Your task to perform on an android device: Show me popular games on the Play Store Image 0: 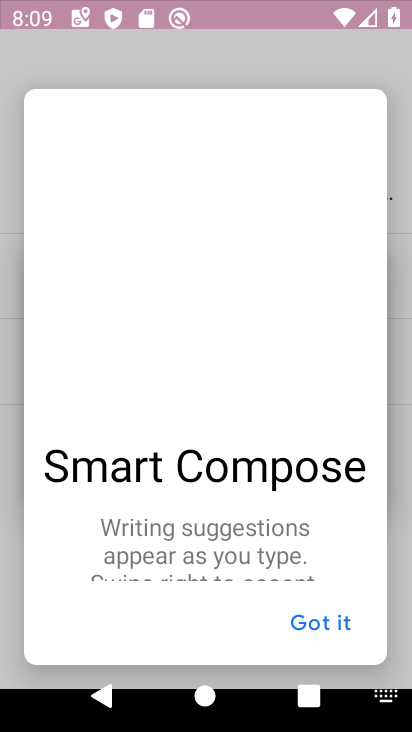
Step 0: click (376, 176)
Your task to perform on an android device: Show me popular games on the Play Store Image 1: 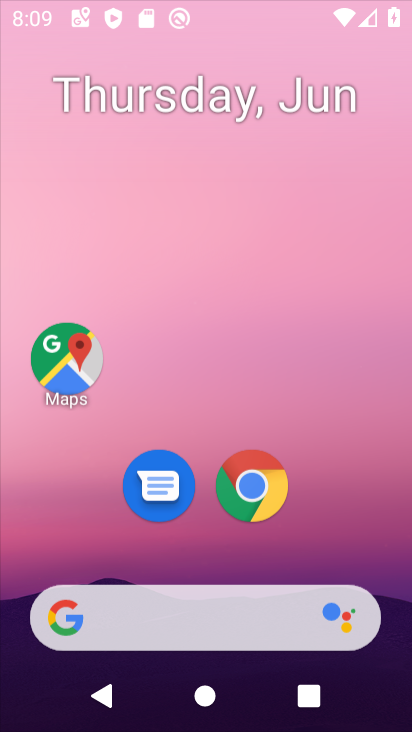
Step 1: drag from (214, 538) to (360, 97)
Your task to perform on an android device: Show me popular games on the Play Store Image 2: 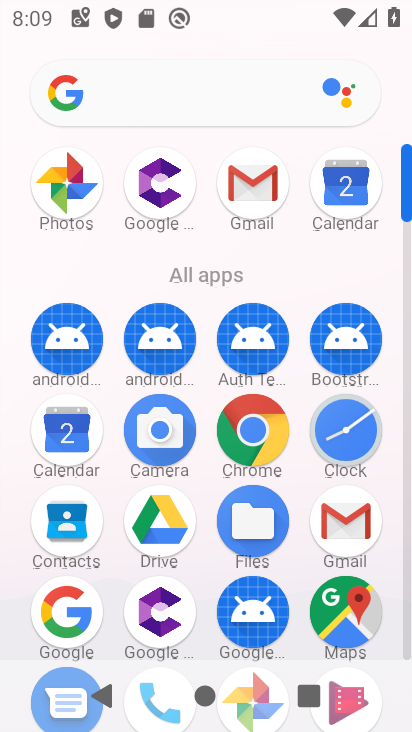
Step 2: drag from (214, 579) to (210, 272)
Your task to perform on an android device: Show me popular games on the Play Store Image 3: 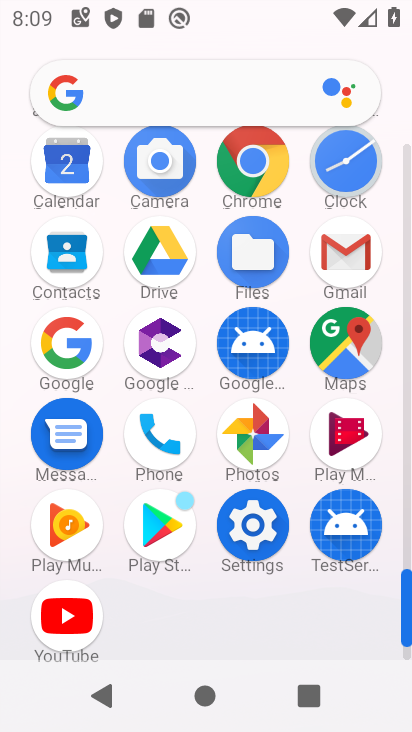
Step 3: click (155, 529)
Your task to perform on an android device: Show me popular games on the Play Store Image 4: 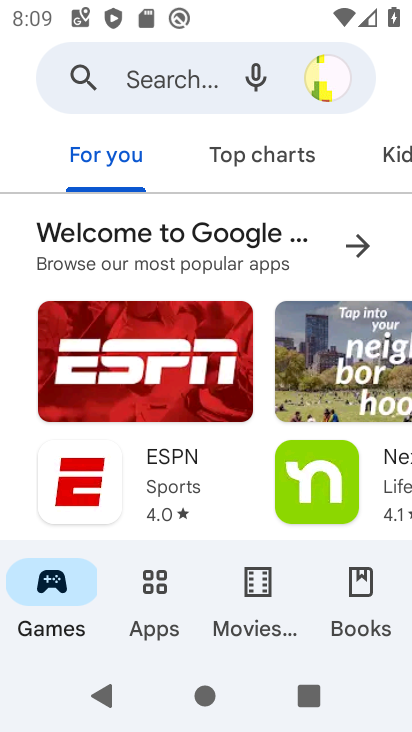
Step 4: drag from (256, 504) to (258, 146)
Your task to perform on an android device: Show me popular games on the Play Store Image 5: 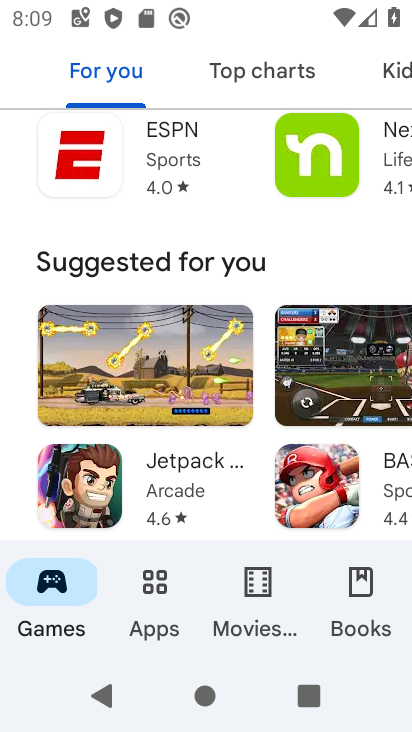
Step 5: drag from (117, 159) to (255, 626)
Your task to perform on an android device: Show me popular games on the Play Store Image 6: 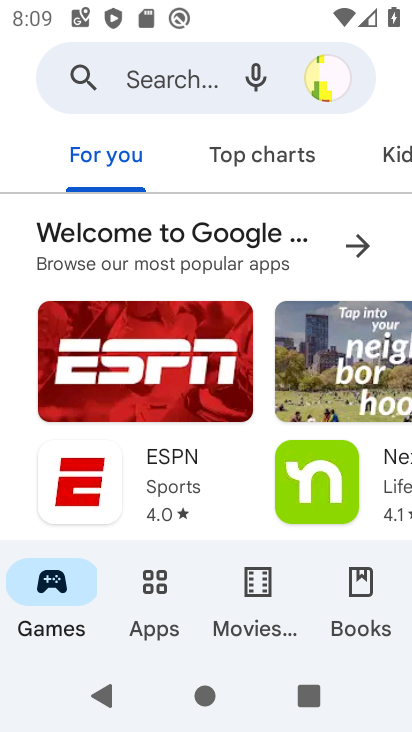
Step 6: drag from (264, 482) to (317, 87)
Your task to perform on an android device: Show me popular games on the Play Store Image 7: 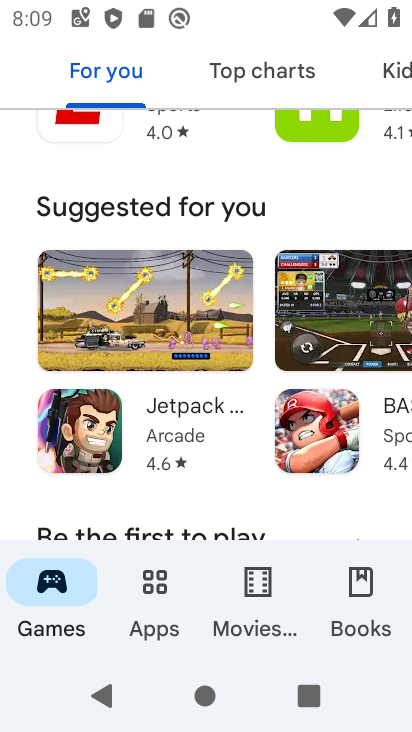
Step 7: drag from (240, 477) to (307, 67)
Your task to perform on an android device: Show me popular games on the Play Store Image 8: 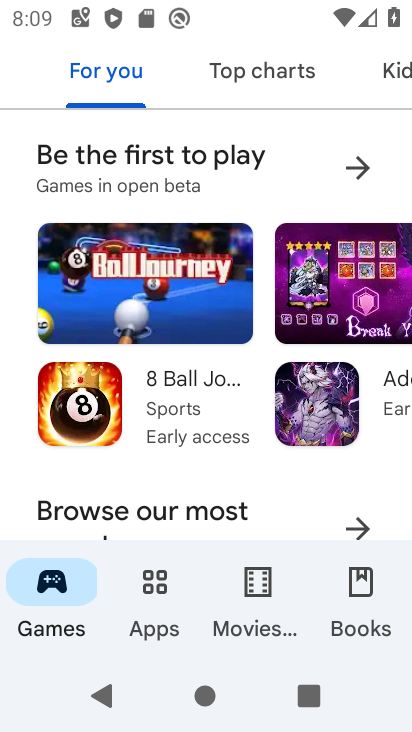
Step 8: drag from (230, 454) to (247, 266)
Your task to perform on an android device: Show me popular games on the Play Store Image 9: 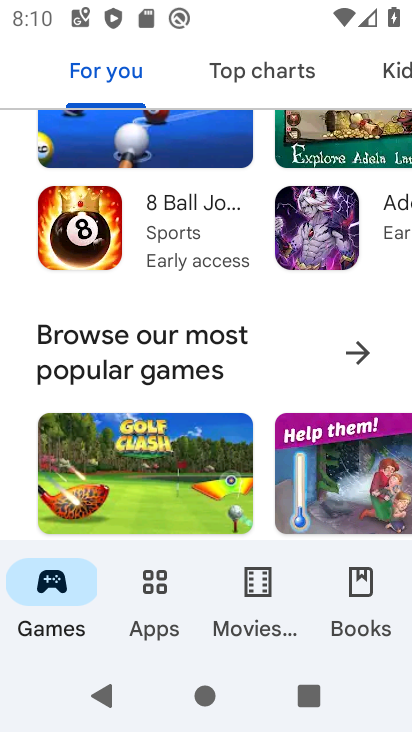
Step 9: click (346, 353)
Your task to perform on an android device: Show me popular games on the Play Store Image 10: 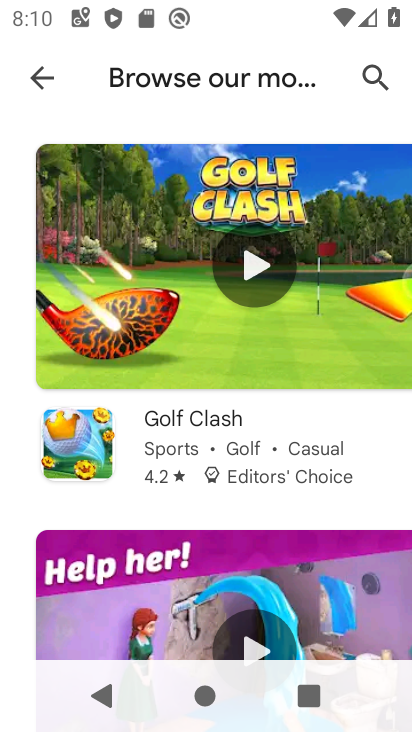
Step 10: task complete